Your task to perform on an android device: Open the calendar app, open the side menu, and click the "Day" option Image 0: 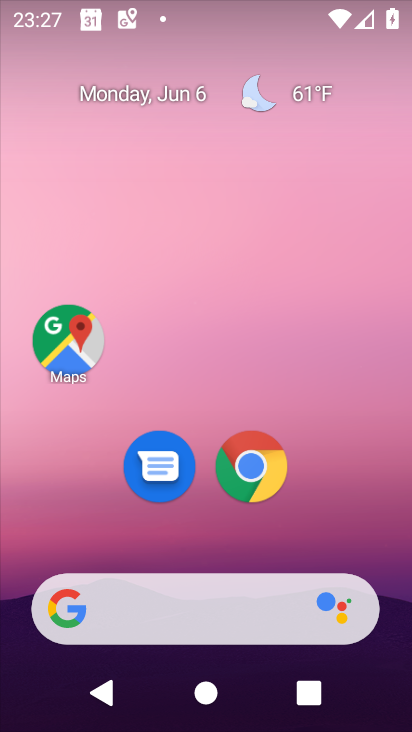
Step 0: press home button
Your task to perform on an android device: Open the calendar app, open the side menu, and click the "Day" option Image 1: 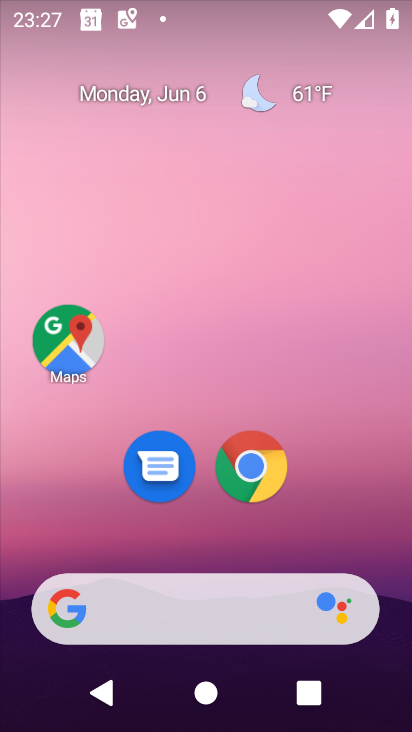
Step 1: drag from (387, 595) to (347, 53)
Your task to perform on an android device: Open the calendar app, open the side menu, and click the "Day" option Image 2: 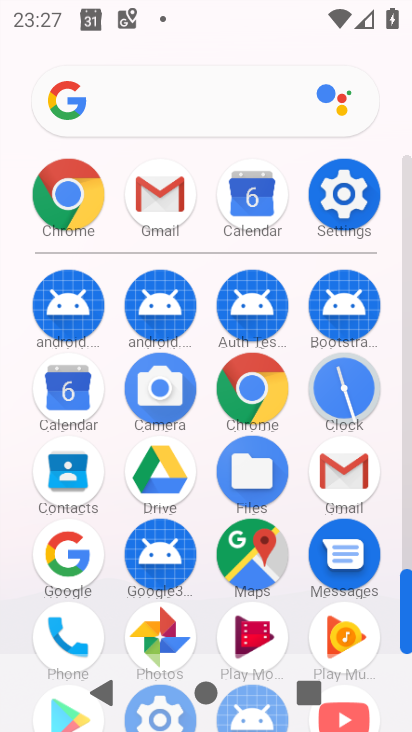
Step 2: click (60, 392)
Your task to perform on an android device: Open the calendar app, open the side menu, and click the "Day" option Image 3: 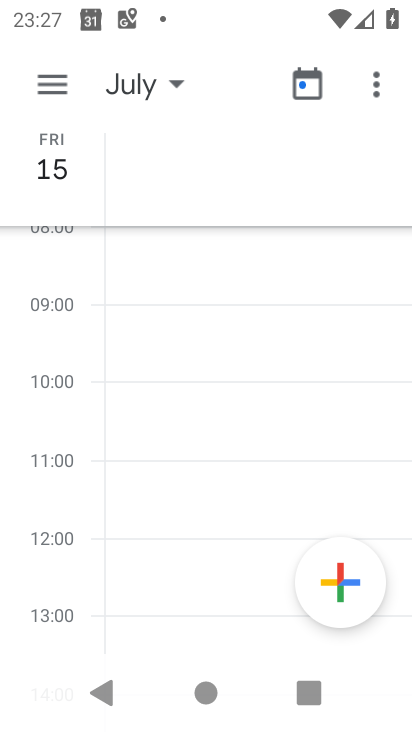
Step 3: task complete